Your task to perform on an android device: Search for vegetarian restaurants on Maps Image 0: 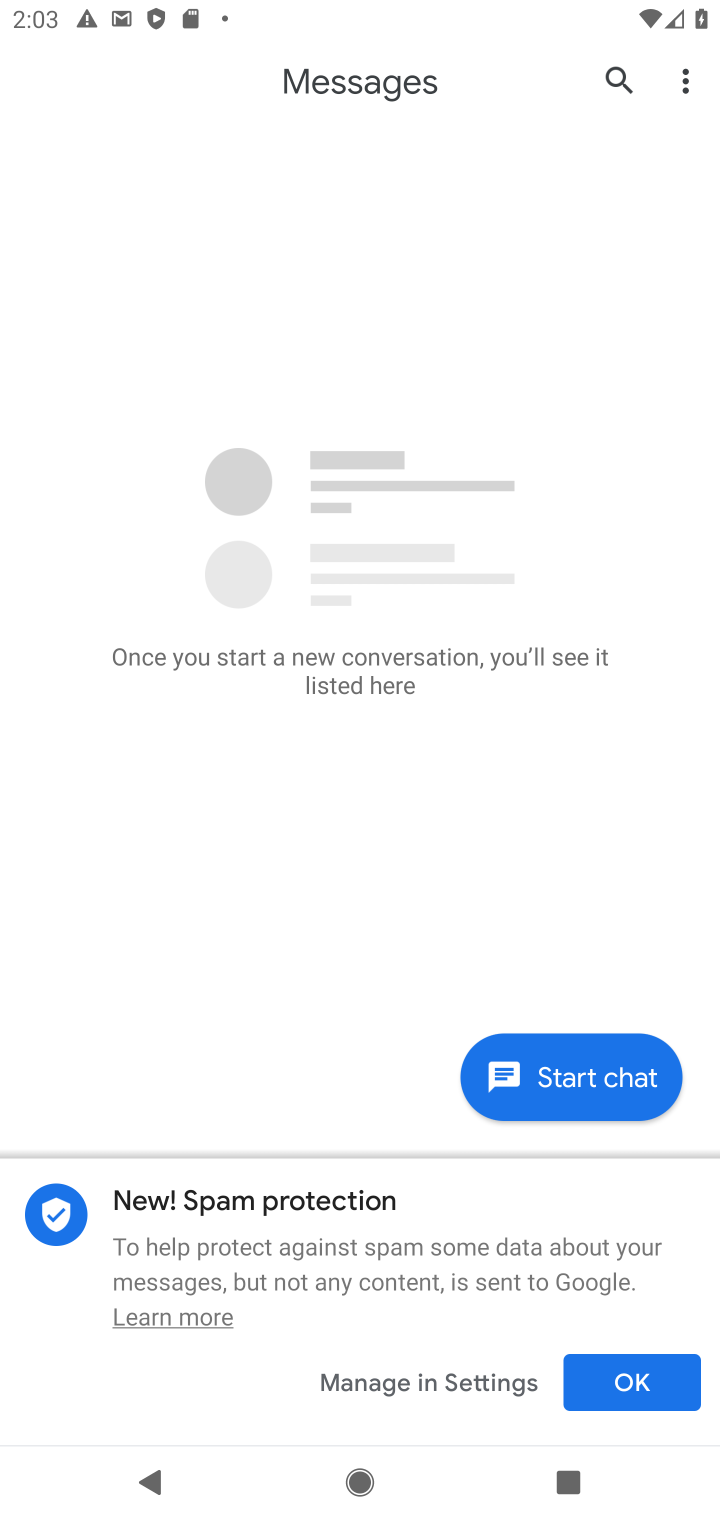
Step 0: press home button
Your task to perform on an android device: Search for vegetarian restaurants on Maps Image 1: 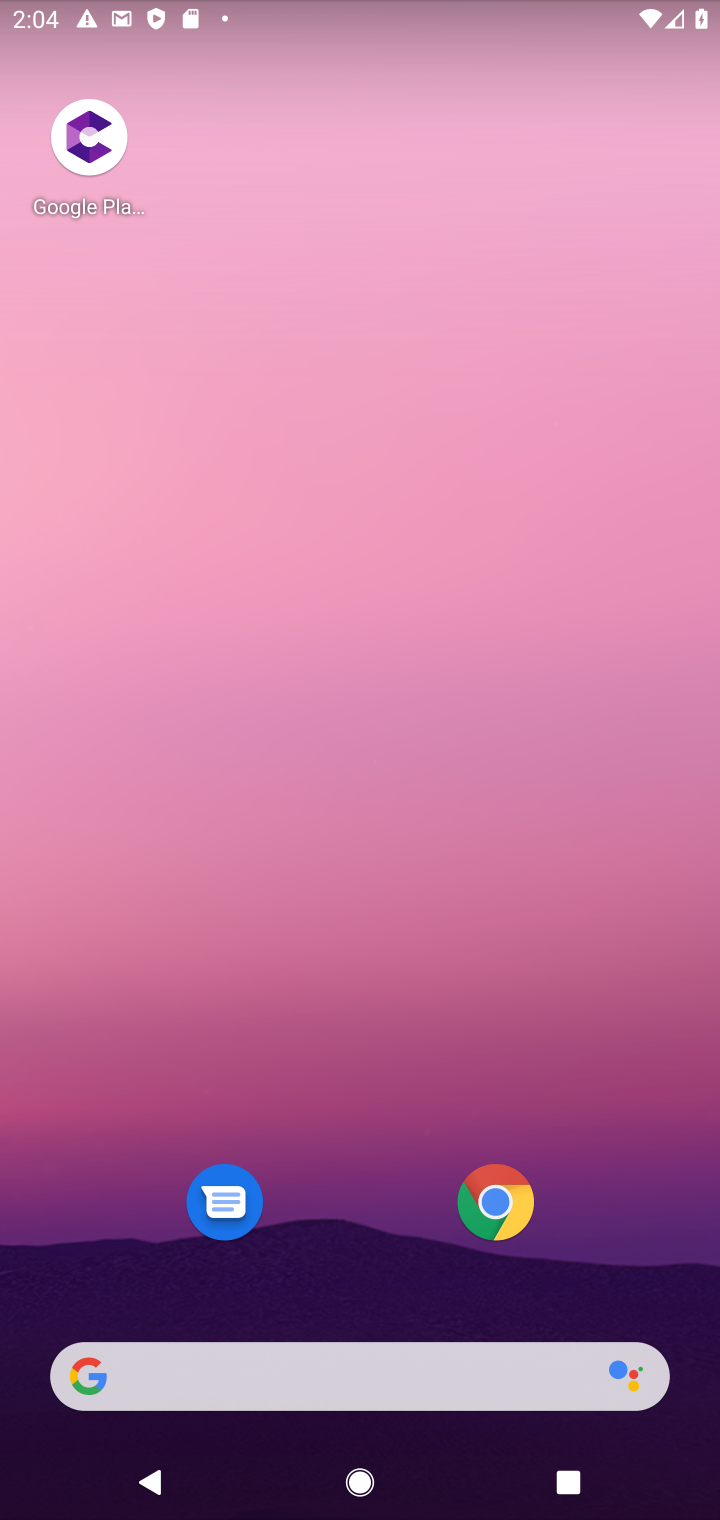
Step 1: drag from (271, 1263) to (253, 285)
Your task to perform on an android device: Search for vegetarian restaurants on Maps Image 2: 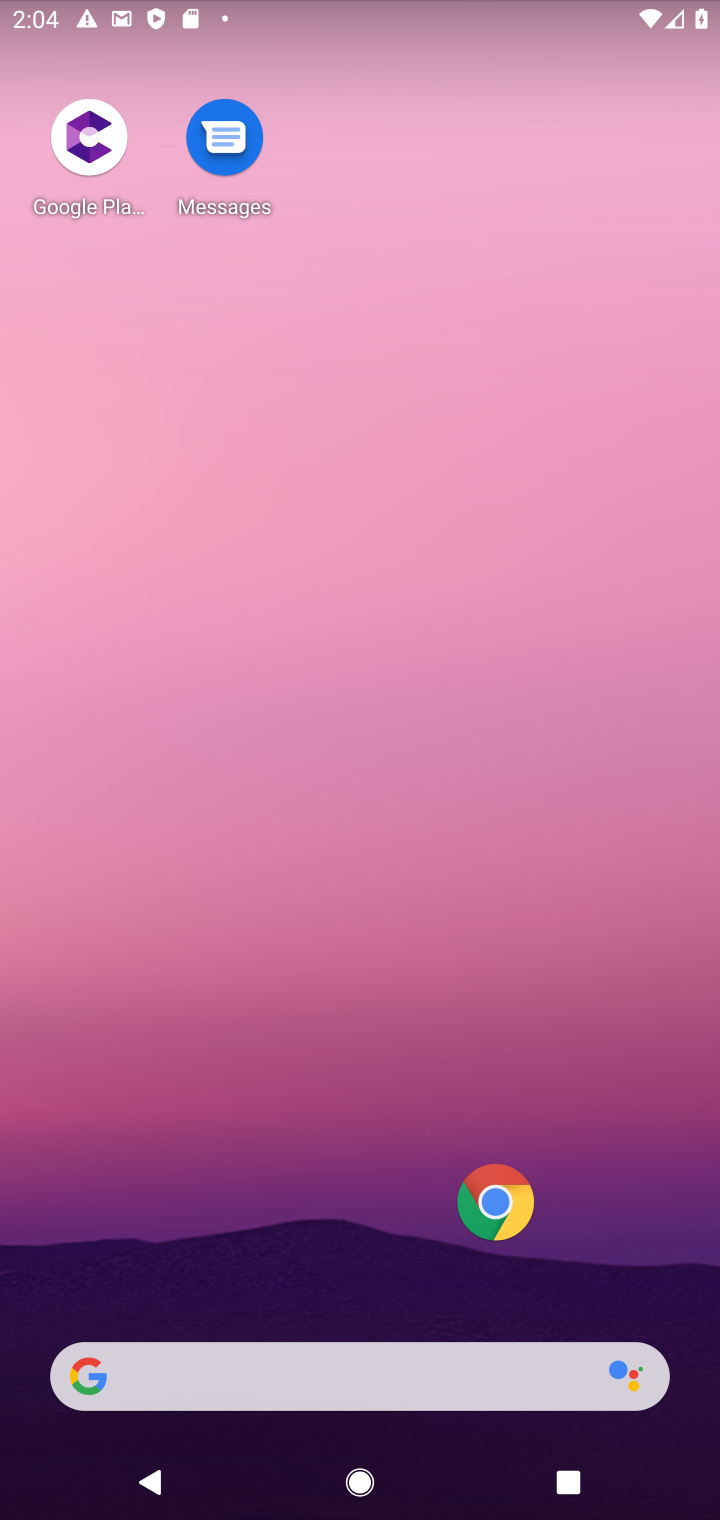
Step 2: click (292, 83)
Your task to perform on an android device: Search for vegetarian restaurants on Maps Image 3: 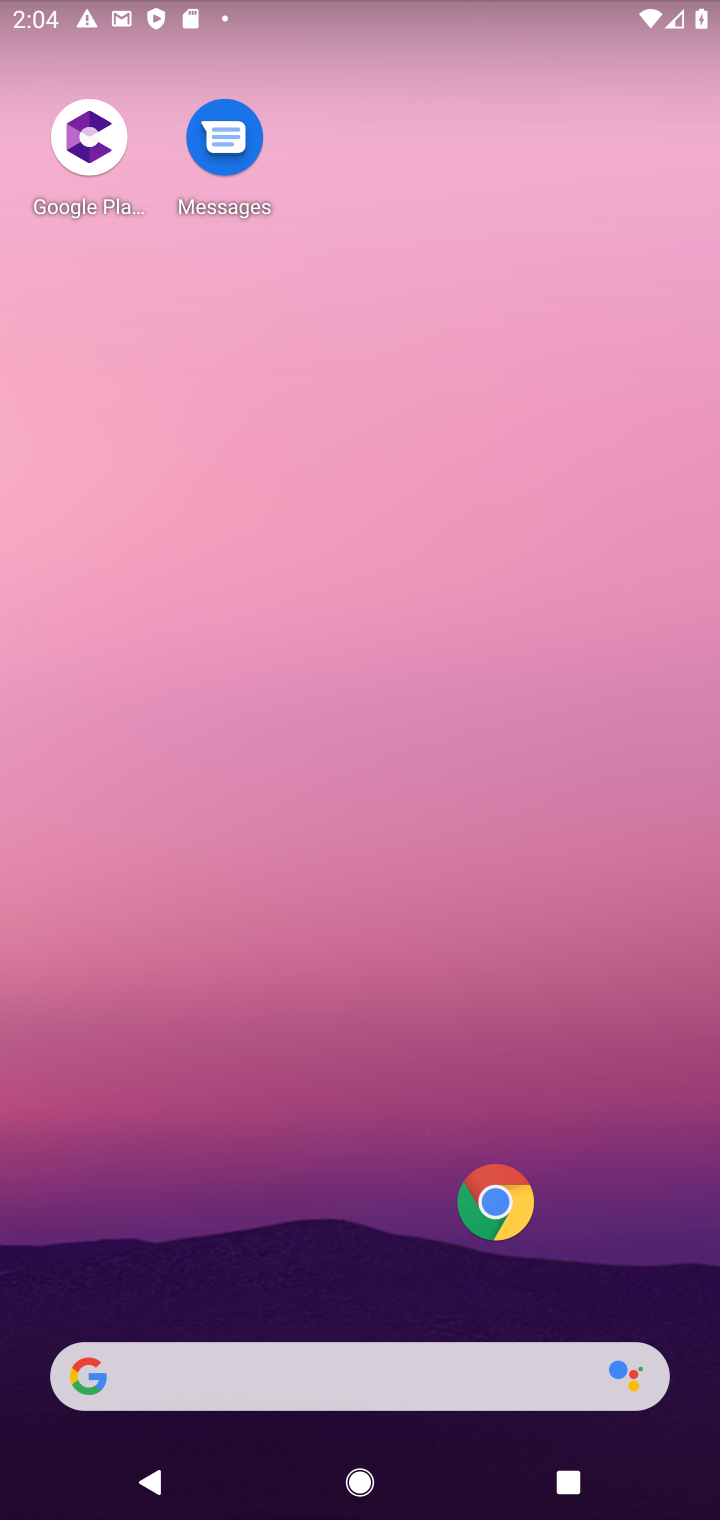
Step 3: drag from (330, 932) to (330, 12)
Your task to perform on an android device: Search for vegetarian restaurants on Maps Image 4: 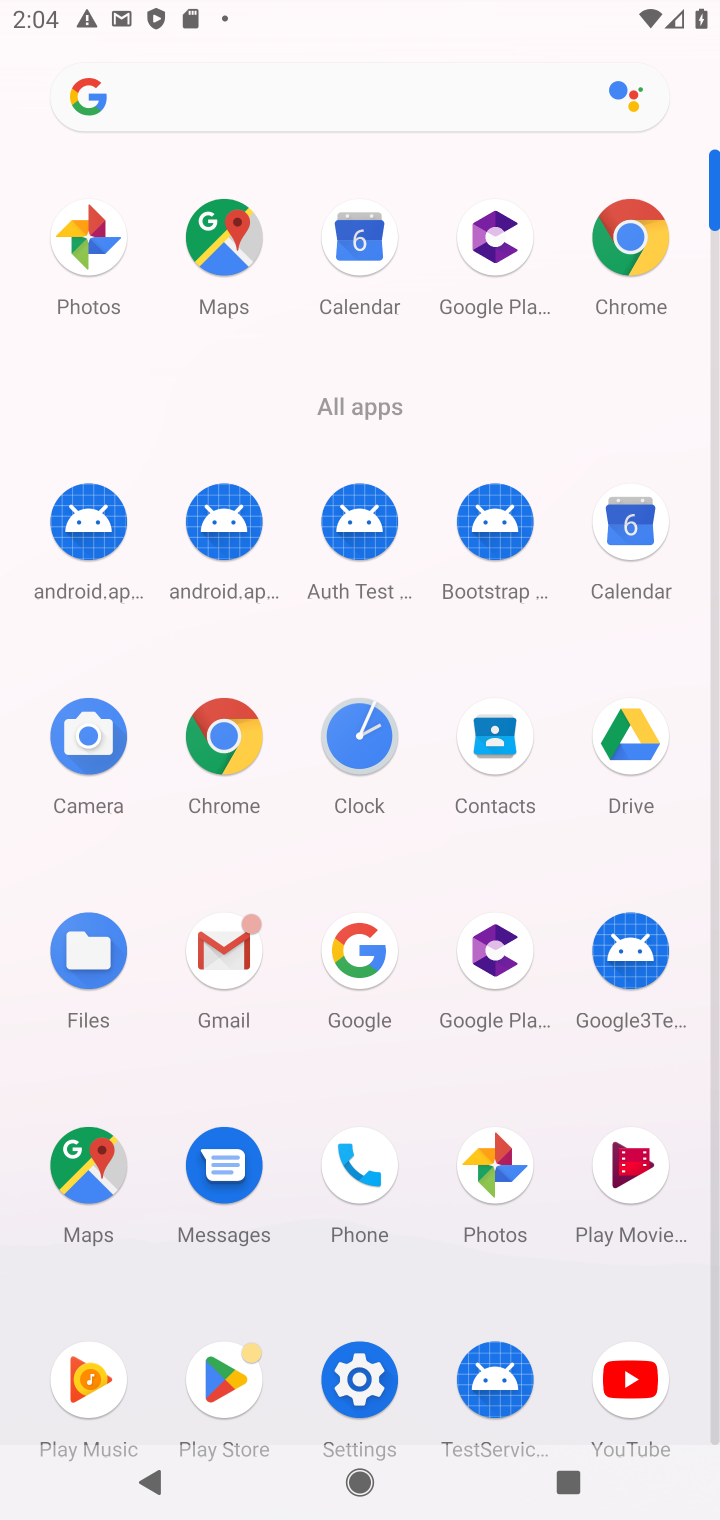
Step 4: click (225, 220)
Your task to perform on an android device: Search for vegetarian restaurants on Maps Image 5: 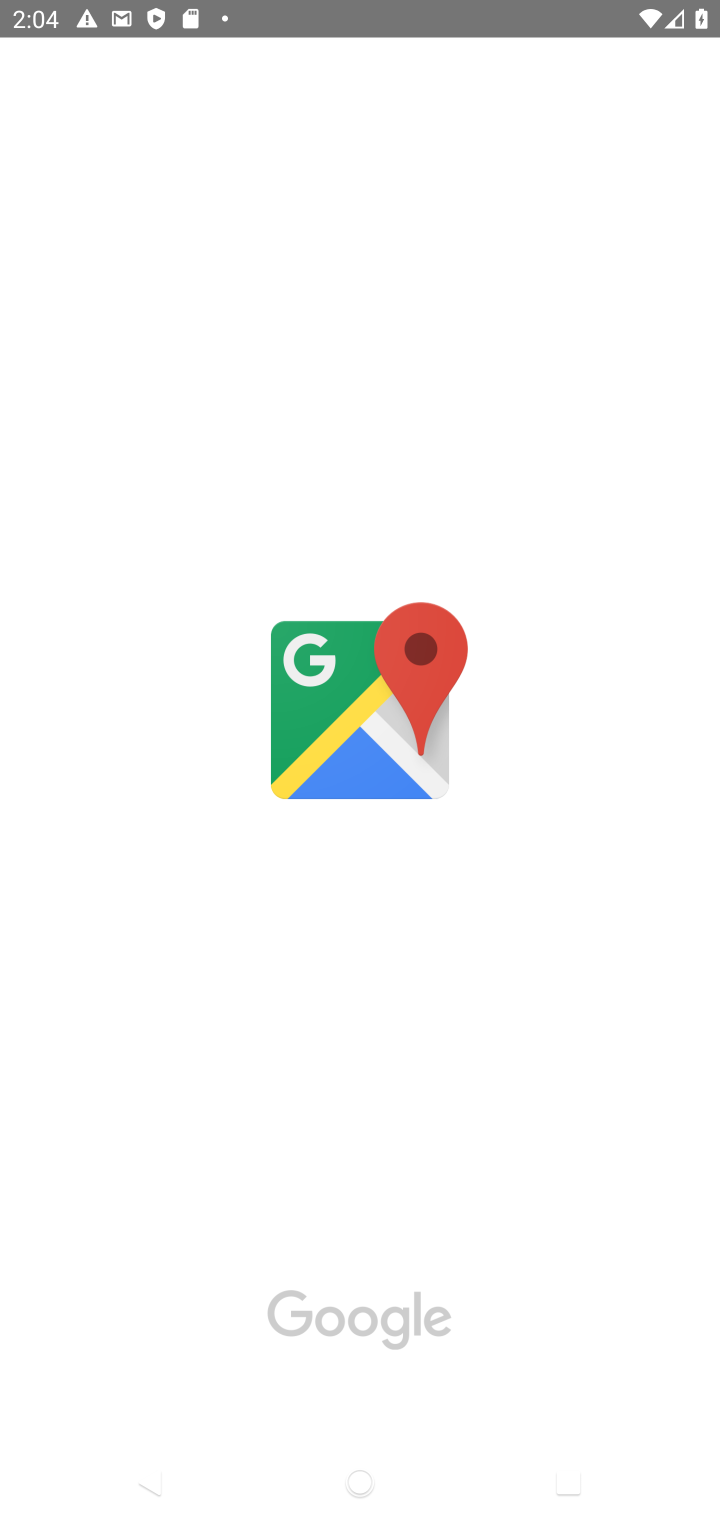
Step 5: press home button
Your task to perform on an android device: Search for vegetarian restaurants on Maps Image 6: 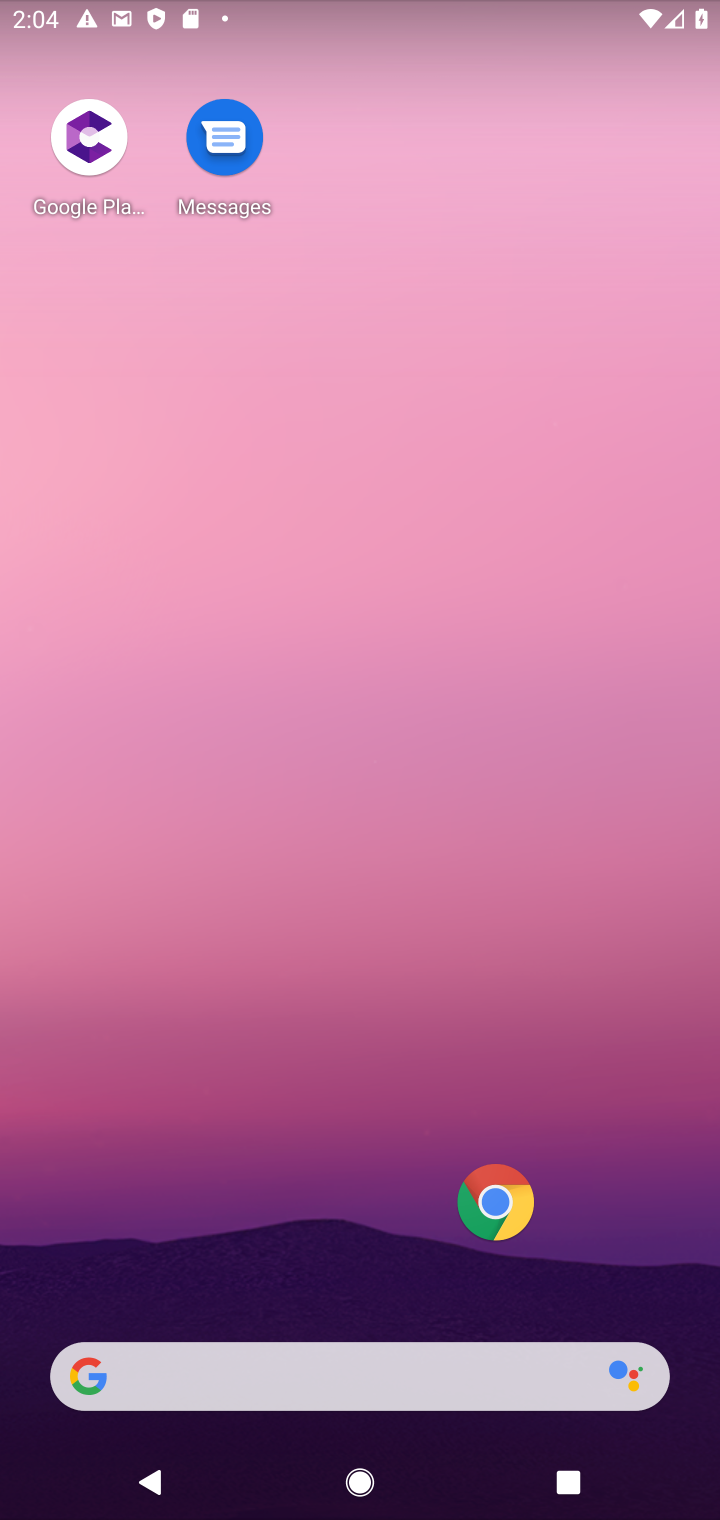
Step 6: drag from (380, 1169) to (370, 195)
Your task to perform on an android device: Search for vegetarian restaurants on Maps Image 7: 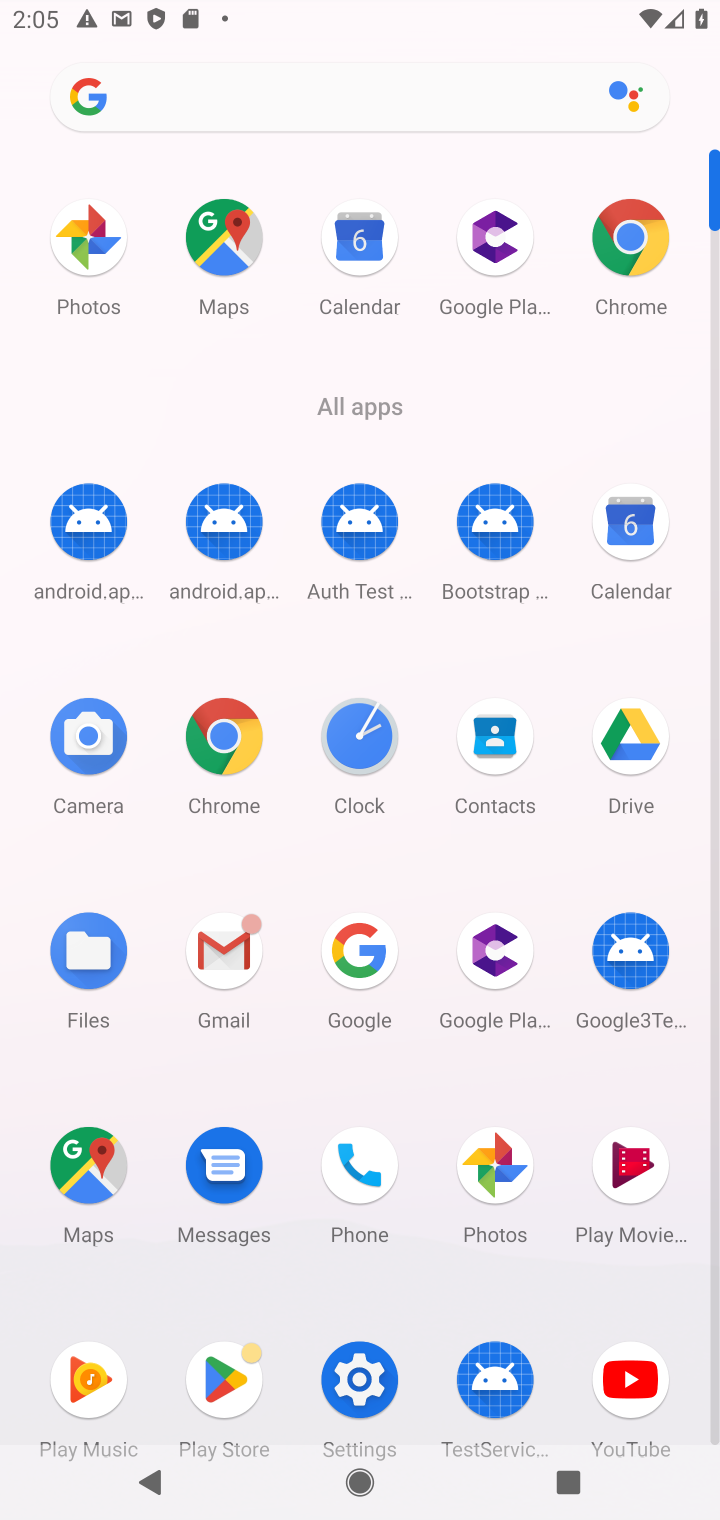
Step 7: click (91, 1228)
Your task to perform on an android device: Search for vegetarian restaurants on Maps Image 8: 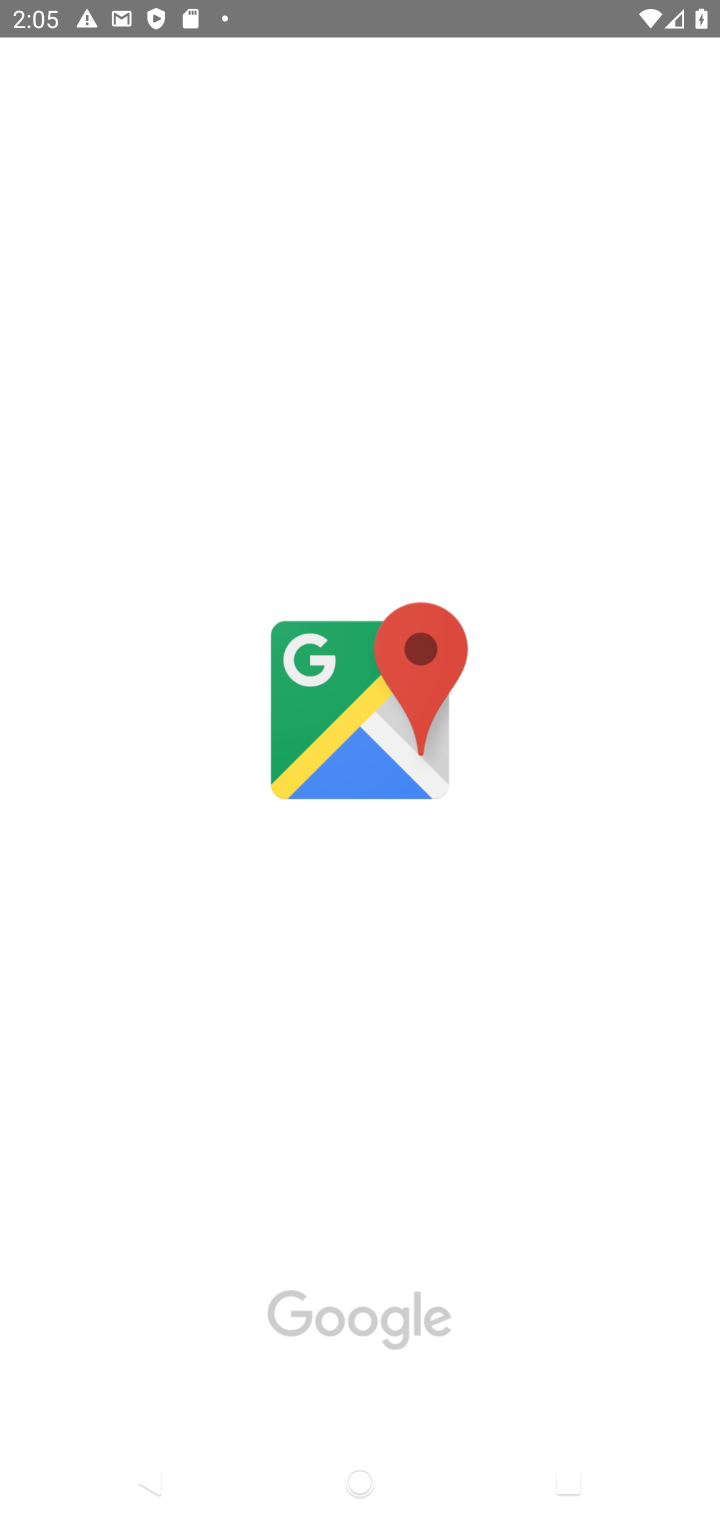
Step 8: task complete